Your task to perform on an android device: Open Google Maps and go to "Timeline" Image 0: 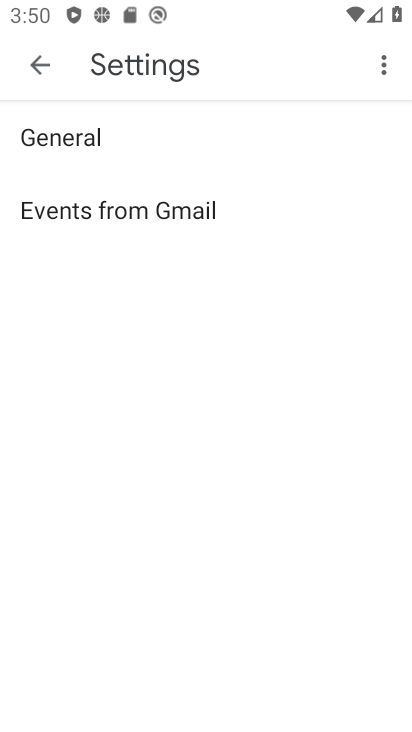
Step 0: press home button
Your task to perform on an android device: Open Google Maps and go to "Timeline" Image 1: 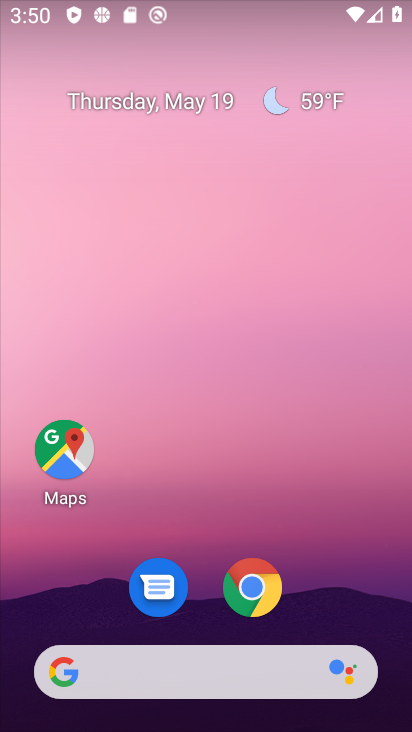
Step 1: click (66, 449)
Your task to perform on an android device: Open Google Maps and go to "Timeline" Image 2: 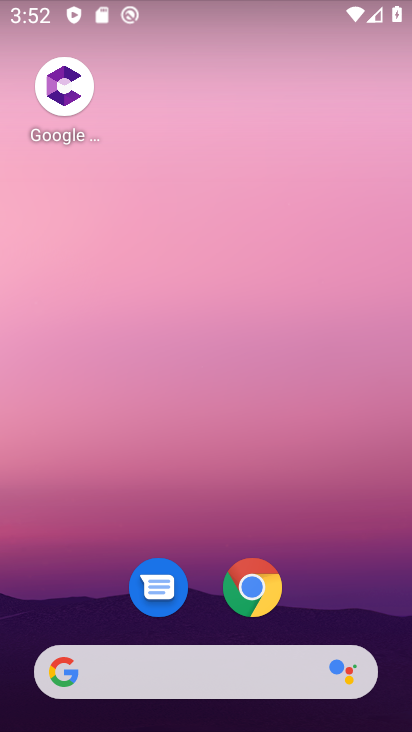
Step 2: drag from (218, 600) to (205, 377)
Your task to perform on an android device: Open Google Maps and go to "Timeline" Image 3: 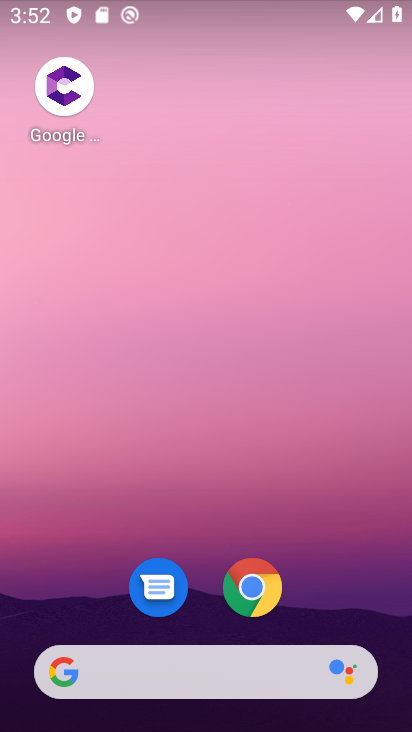
Step 3: drag from (139, 646) to (146, 292)
Your task to perform on an android device: Open Google Maps and go to "Timeline" Image 4: 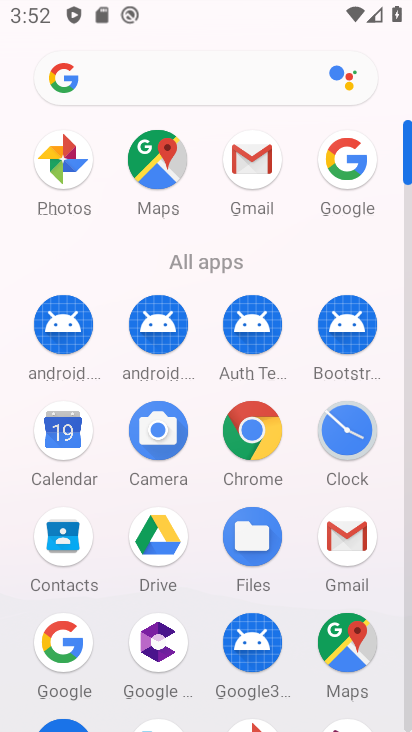
Step 4: click (365, 653)
Your task to perform on an android device: Open Google Maps and go to "Timeline" Image 5: 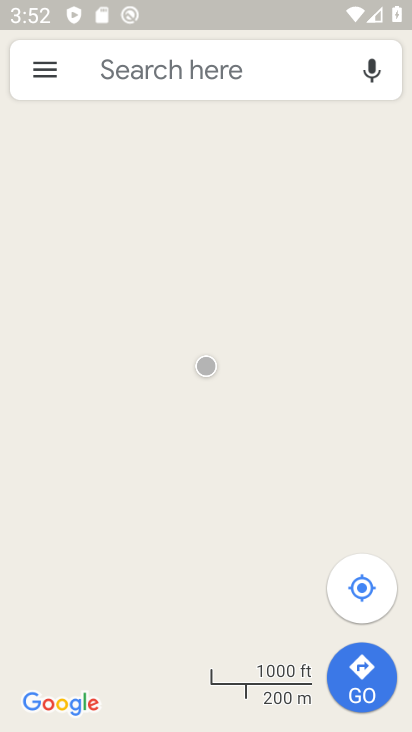
Step 5: click (43, 75)
Your task to perform on an android device: Open Google Maps and go to "Timeline" Image 6: 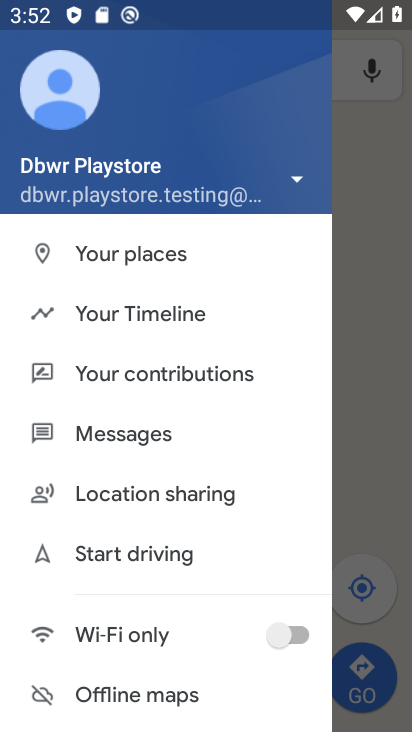
Step 6: click (109, 319)
Your task to perform on an android device: Open Google Maps and go to "Timeline" Image 7: 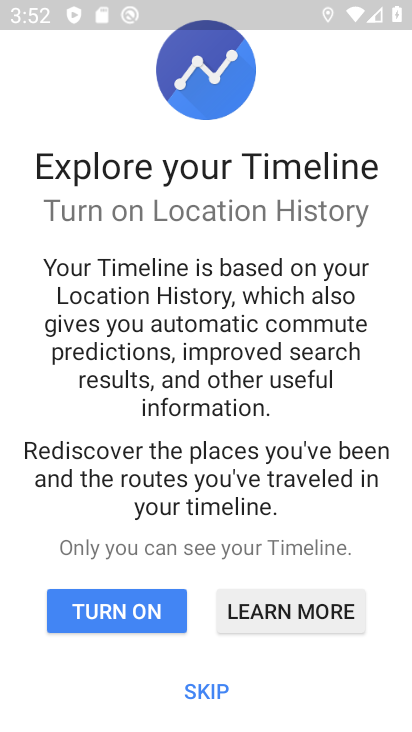
Step 7: click (329, 613)
Your task to perform on an android device: Open Google Maps and go to "Timeline" Image 8: 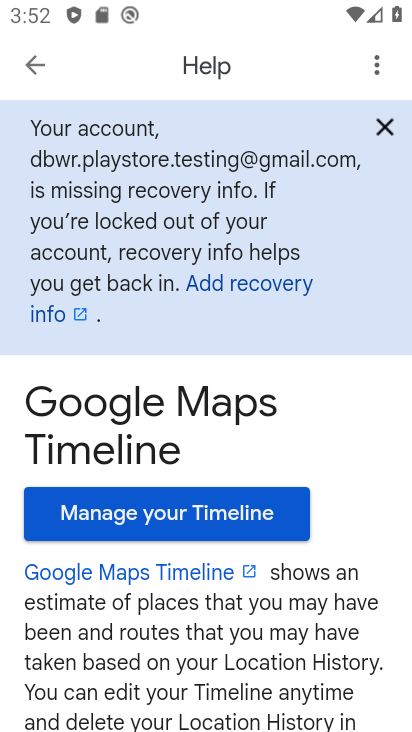
Step 8: click (380, 122)
Your task to perform on an android device: Open Google Maps and go to "Timeline" Image 9: 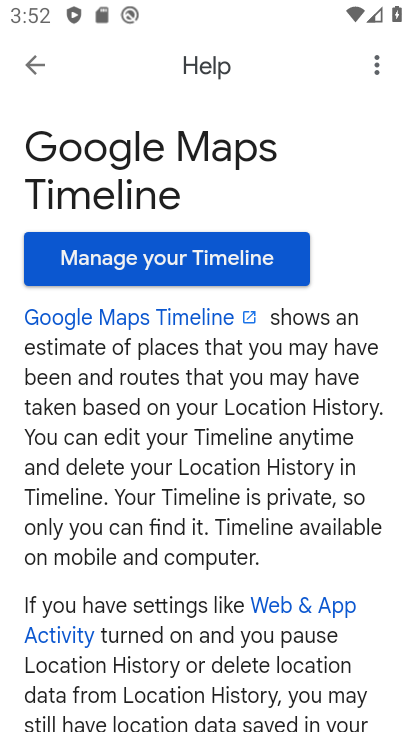
Step 9: click (199, 249)
Your task to perform on an android device: Open Google Maps and go to "Timeline" Image 10: 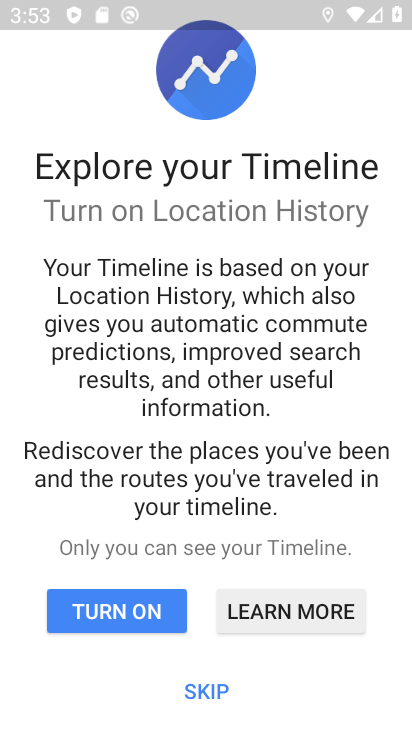
Step 10: click (138, 609)
Your task to perform on an android device: Open Google Maps and go to "Timeline" Image 11: 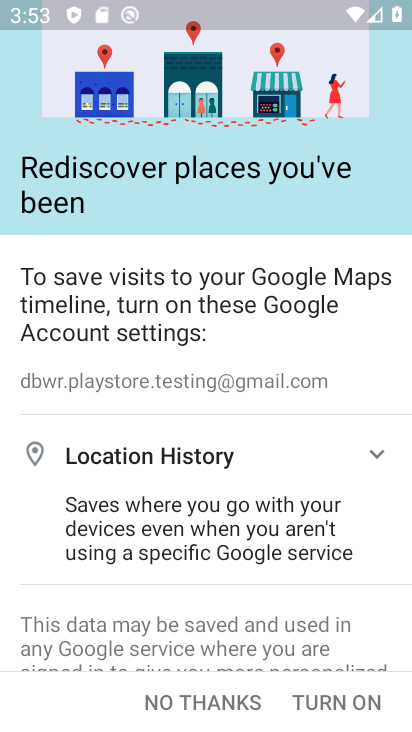
Step 11: click (333, 695)
Your task to perform on an android device: Open Google Maps and go to "Timeline" Image 12: 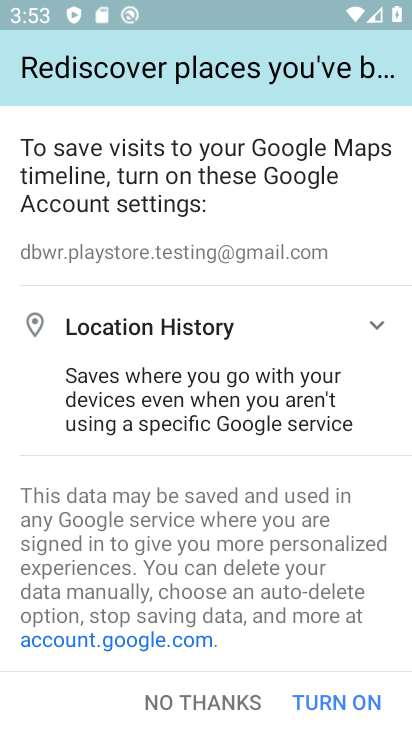
Step 12: click (328, 702)
Your task to perform on an android device: Open Google Maps and go to "Timeline" Image 13: 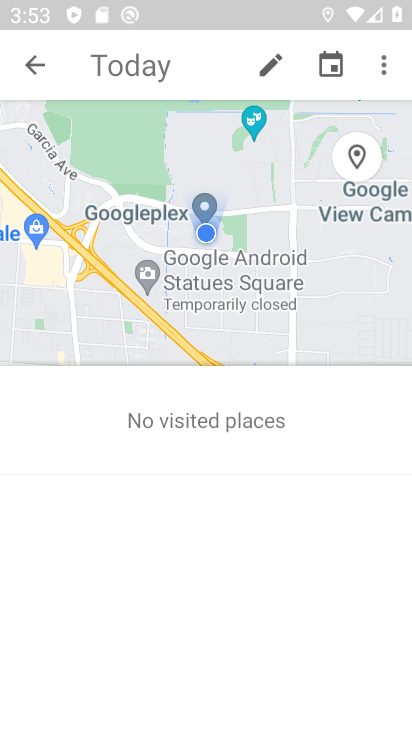
Step 13: task complete